Your task to perform on an android device: turn on location history Image 0: 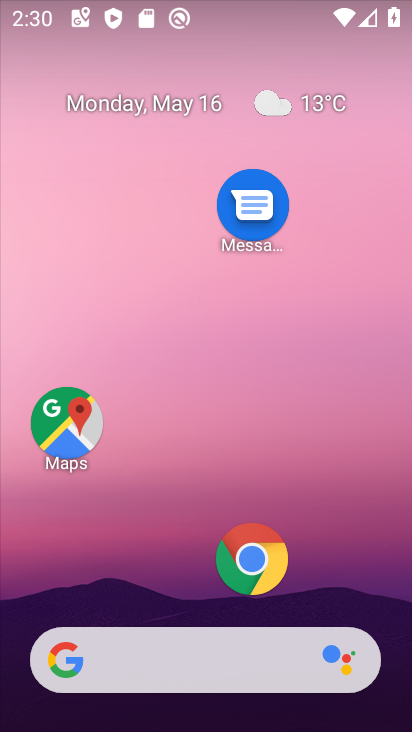
Step 0: drag from (155, 569) to (192, 243)
Your task to perform on an android device: turn on location history Image 1: 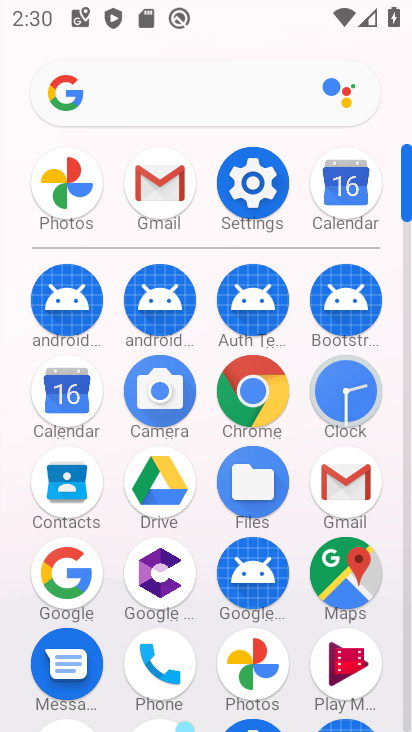
Step 1: click (252, 176)
Your task to perform on an android device: turn on location history Image 2: 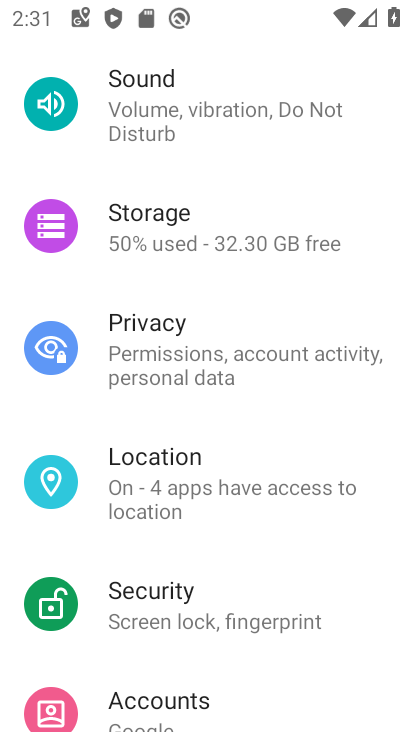
Step 2: click (183, 476)
Your task to perform on an android device: turn on location history Image 3: 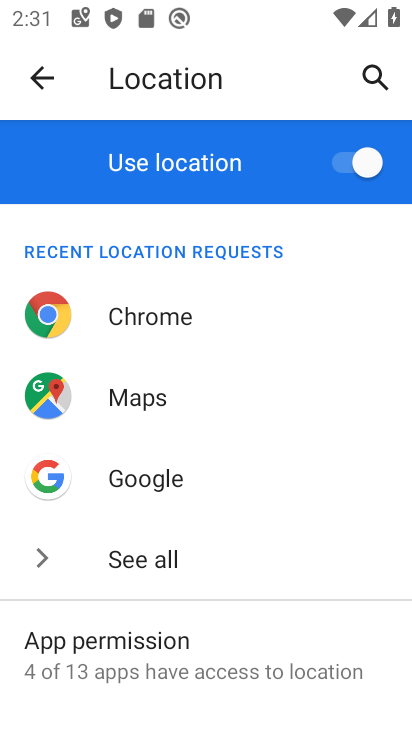
Step 3: drag from (228, 302) to (258, 146)
Your task to perform on an android device: turn on location history Image 4: 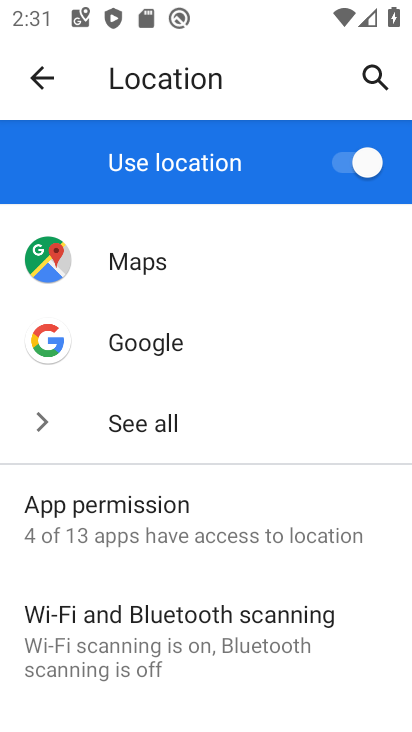
Step 4: drag from (137, 513) to (186, 211)
Your task to perform on an android device: turn on location history Image 5: 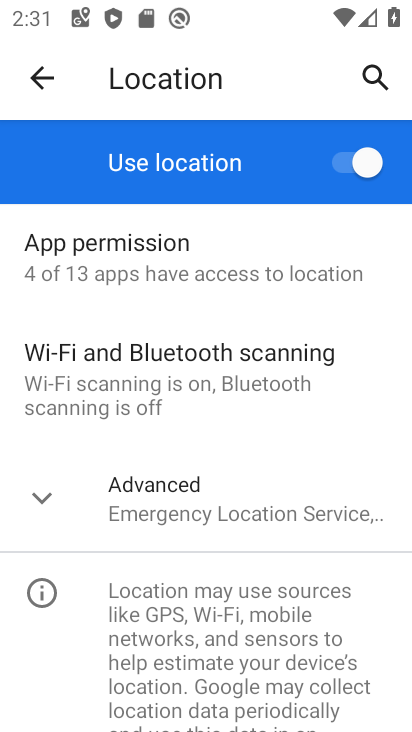
Step 5: click (34, 532)
Your task to perform on an android device: turn on location history Image 6: 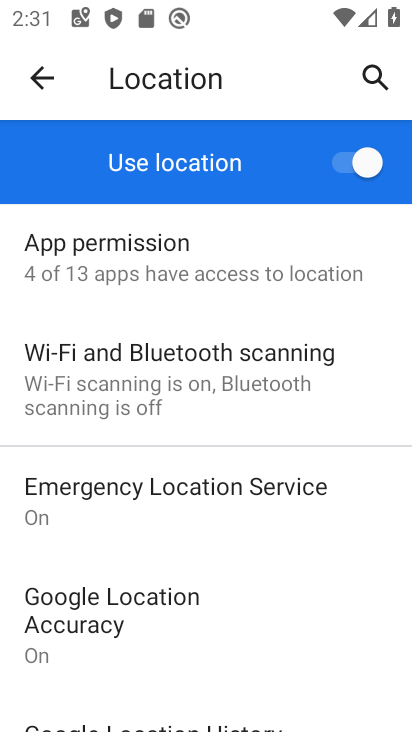
Step 6: drag from (110, 645) to (239, 275)
Your task to perform on an android device: turn on location history Image 7: 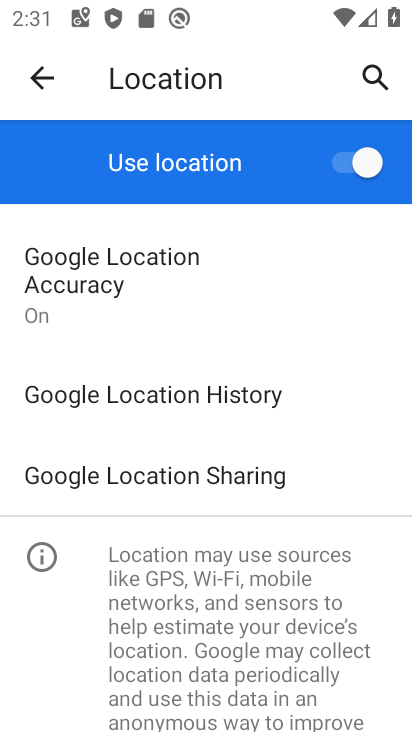
Step 7: click (136, 410)
Your task to perform on an android device: turn on location history Image 8: 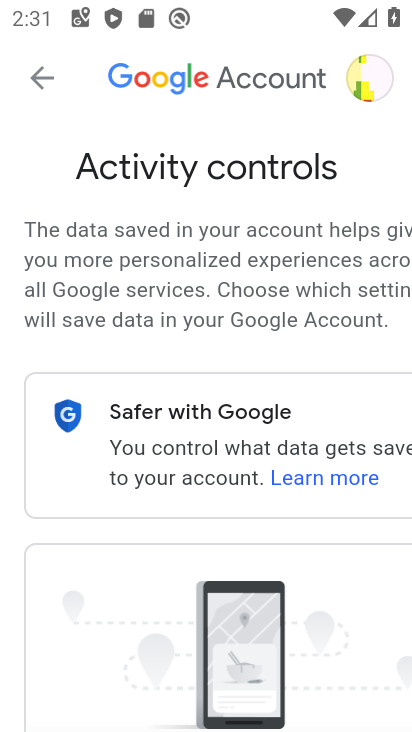
Step 8: task complete